Your task to perform on an android device: Go to Maps Image 0: 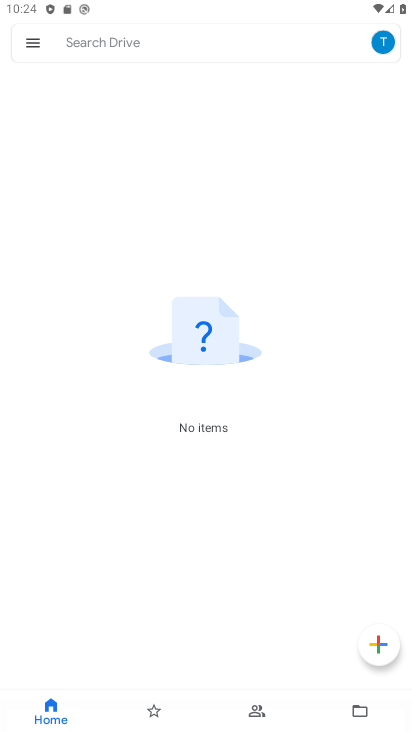
Step 0: press home button
Your task to perform on an android device: Go to Maps Image 1: 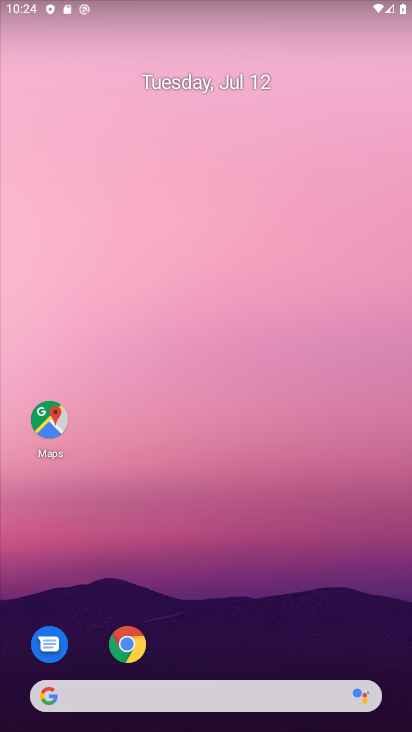
Step 1: drag from (231, 647) to (165, 274)
Your task to perform on an android device: Go to Maps Image 2: 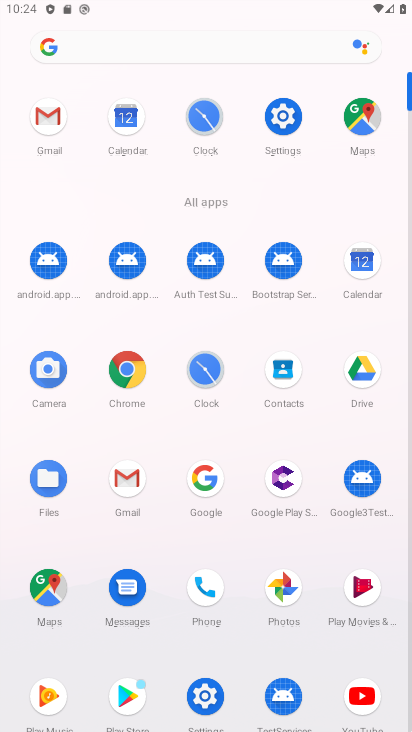
Step 2: click (47, 587)
Your task to perform on an android device: Go to Maps Image 3: 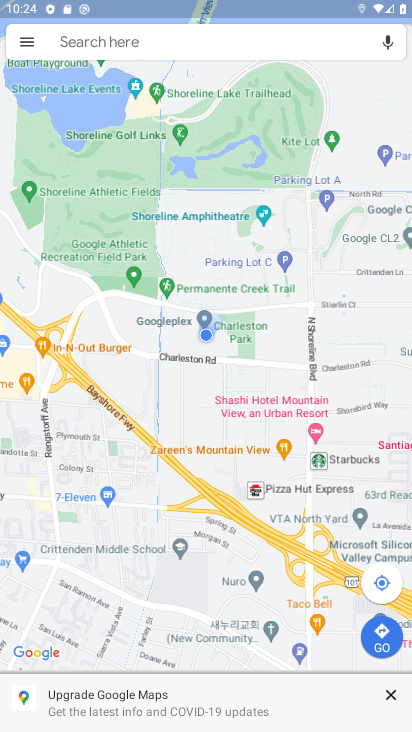
Step 3: task complete